Your task to perform on an android device: Go to settings Image 0: 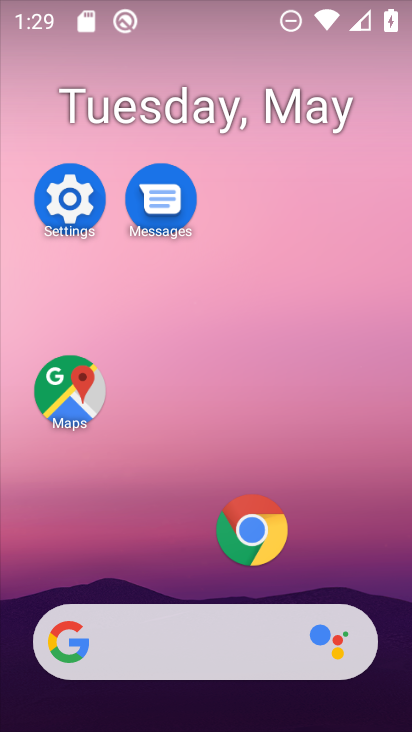
Step 0: drag from (189, 567) to (342, 104)
Your task to perform on an android device: Go to settings Image 1: 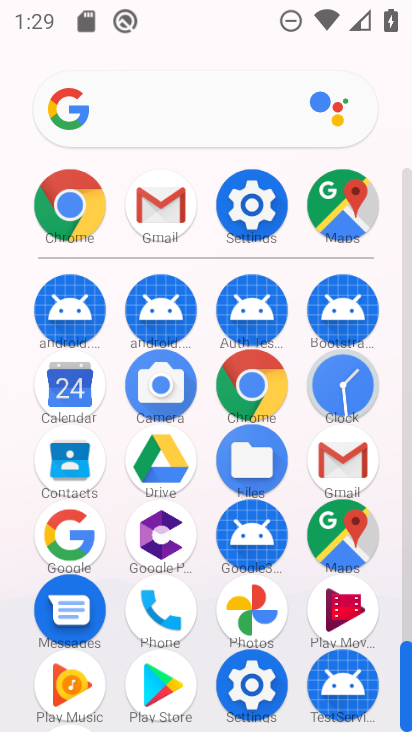
Step 1: click (257, 684)
Your task to perform on an android device: Go to settings Image 2: 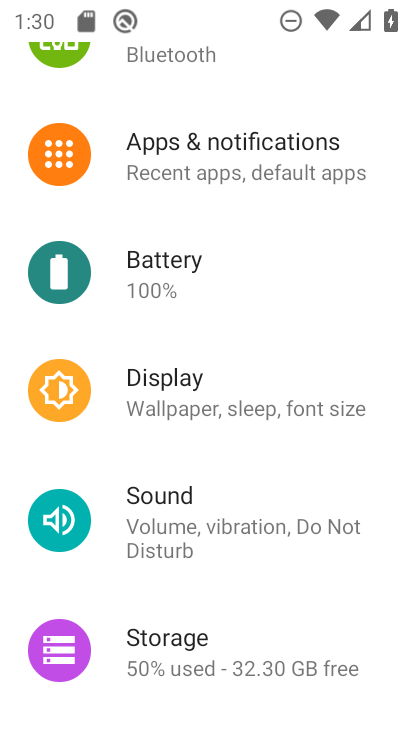
Step 2: task complete